Your task to perform on an android device: turn on bluetooth scan Image 0: 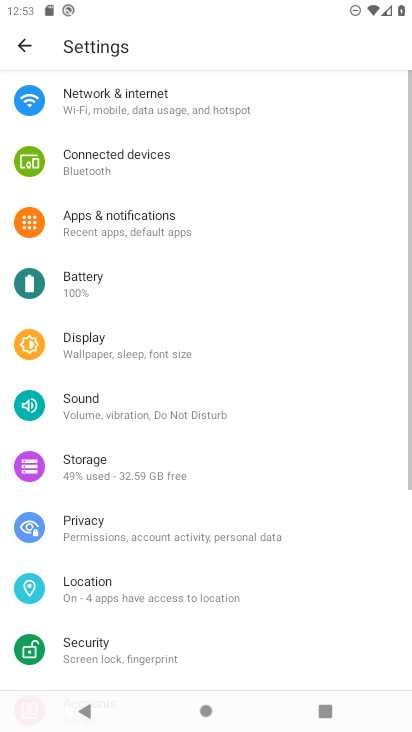
Step 0: click (151, 158)
Your task to perform on an android device: turn on bluetooth scan Image 1: 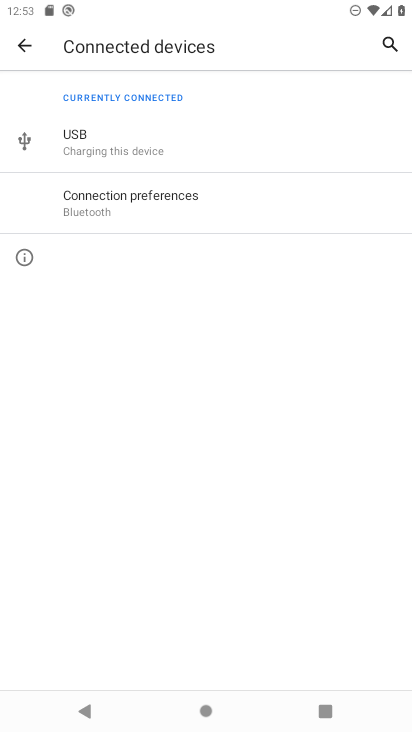
Step 1: click (118, 204)
Your task to perform on an android device: turn on bluetooth scan Image 2: 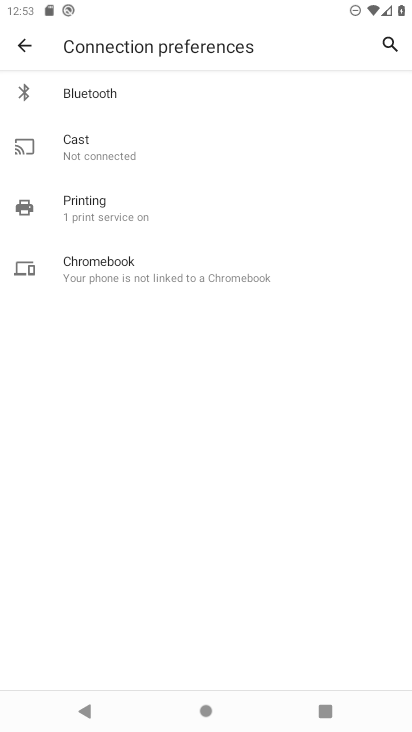
Step 2: click (86, 106)
Your task to perform on an android device: turn on bluetooth scan Image 3: 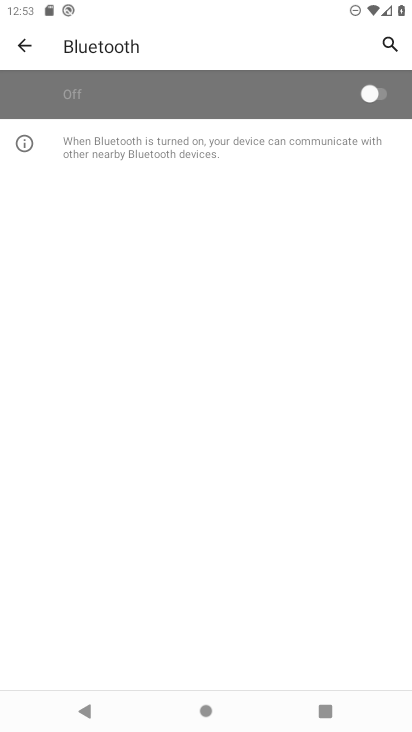
Step 3: task complete